Your task to perform on an android device: choose inbox layout in the gmail app Image 0: 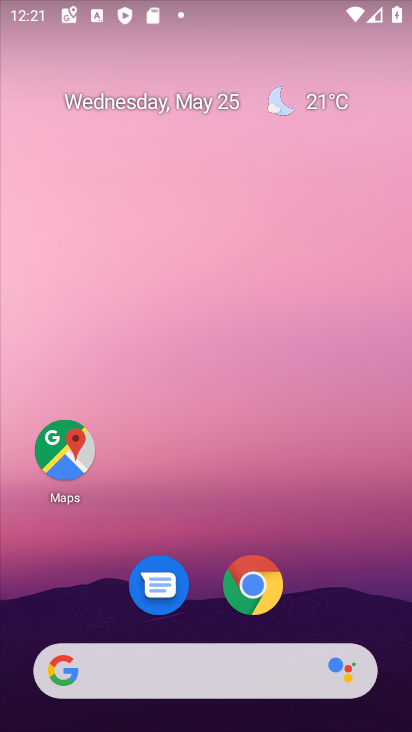
Step 0: drag from (225, 499) to (220, 57)
Your task to perform on an android device: choose inbox layout in the gmail app Image 1: 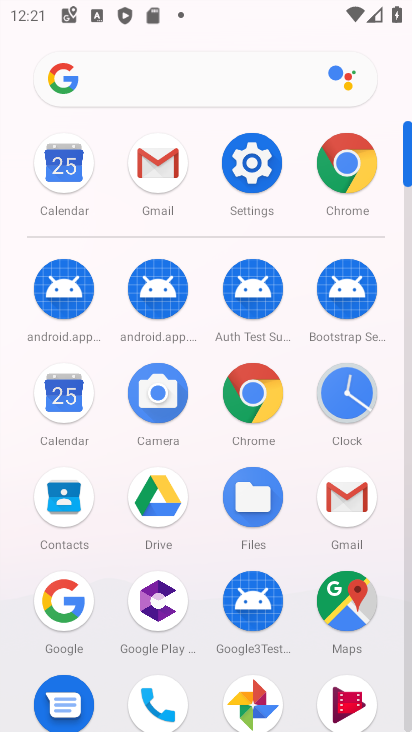
Step 1: click (163, 160)
Your task to perform on an android device: choose inbox layout in the gmail app Image 2: 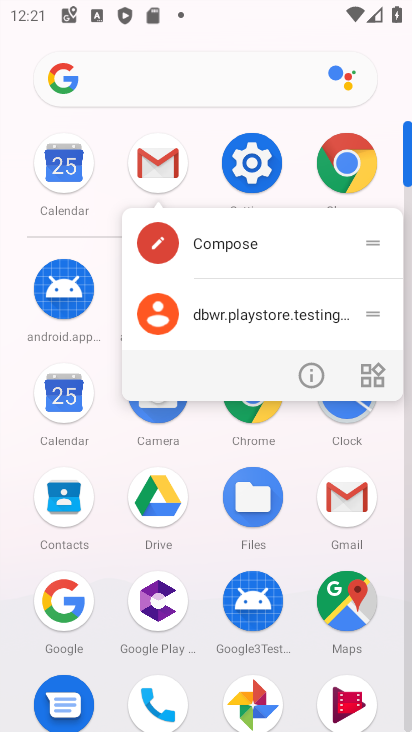
Step 2: click (163, 158)
Your task to perform on an android device: choose inbox layout in the gmail app Image 3: 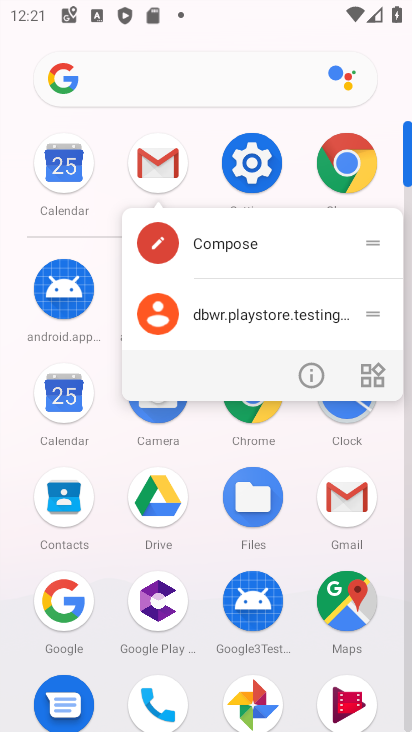
Step 3: click (152, 149)
Your task to perform on an android device: choose inbox layout in the gmail app Image 4: 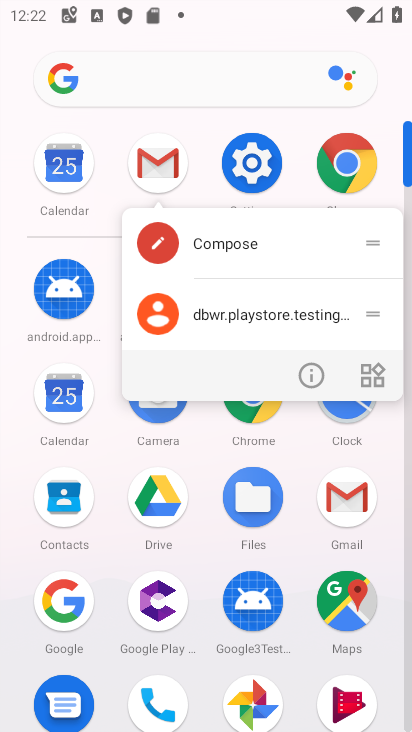
Step 4: click (152, 149)
Your task to perform on an android device: choose inbox layout in the gmail app Image 5: 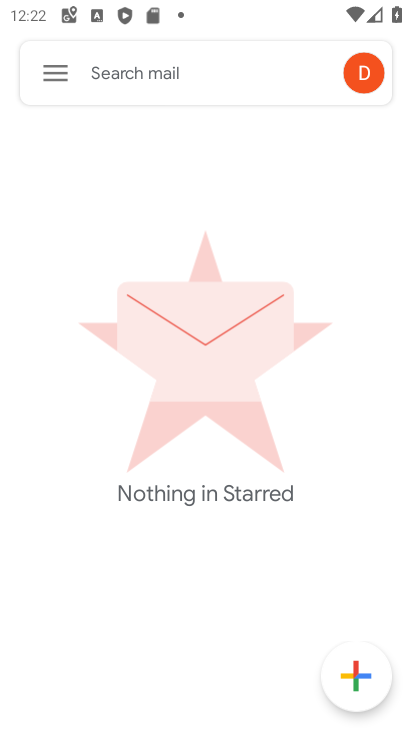
Step 5: click (56, 77)
Your task to perform on an android device: choose inbox layout in the gmail app Image 6: 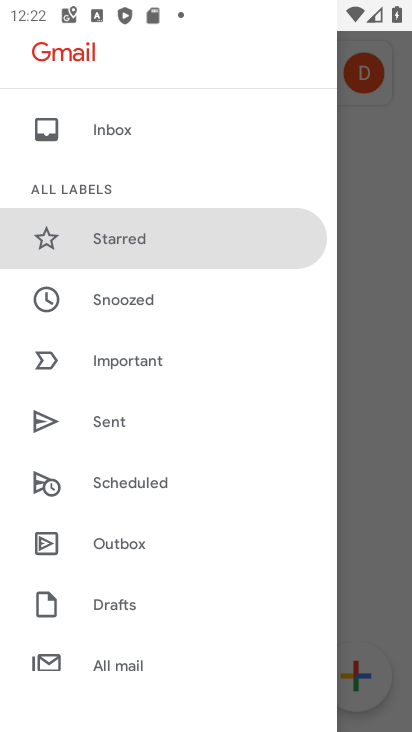
Step 6: drag from (188, 533) to (236, 166)
Your task to perform on an android device: choose inbox layout in the gmail app Image 7: 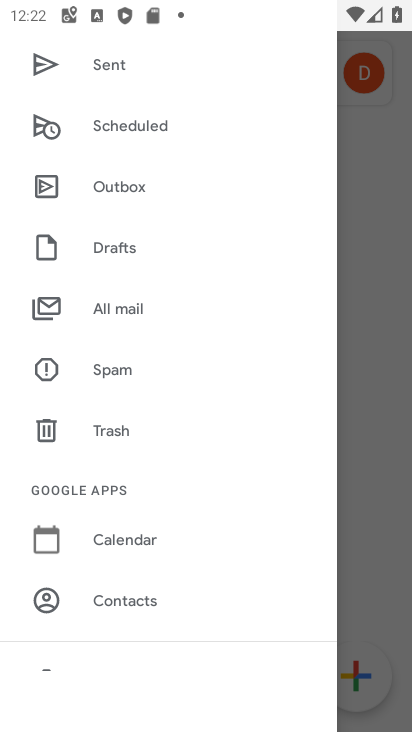
Step 7: drag from (183, 436) to (183, 215)
Your task to perform on an android device: choose inbox layout in the gmail app Image 8: 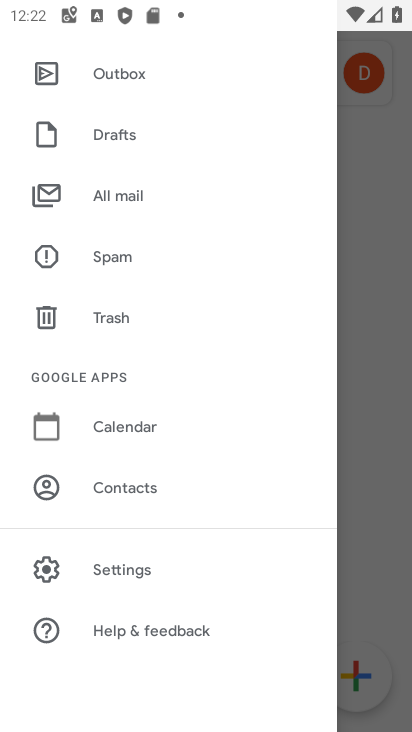
Step 8: click (161, 565)
Your task to perform on an android device: choose inbox layout in the gmail app Image 9: 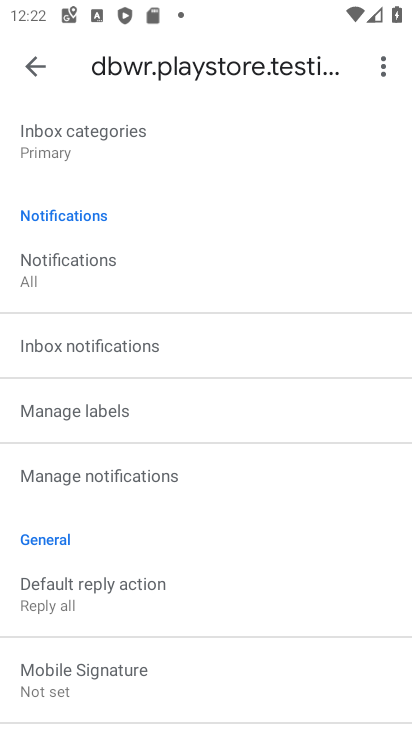
Step 9: drag from (190, 220) to (165, 551)
Your task to perform on an android device: choose inbox layout in the gmail app Image 10: 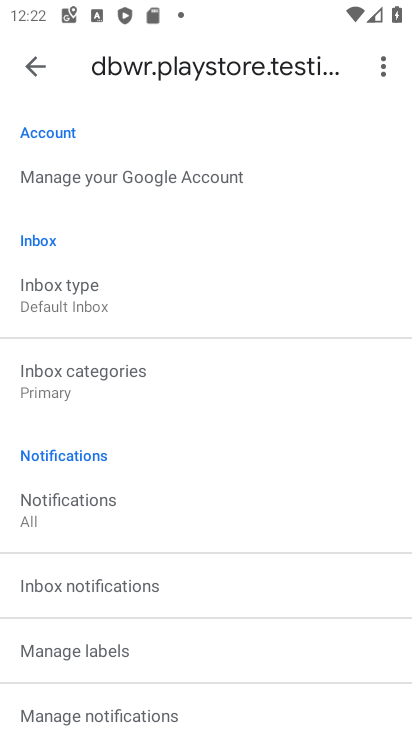
Step 10: click (78, 290)
Your task to perform on an android device: choose inbox layout in the gmail app Image 11: 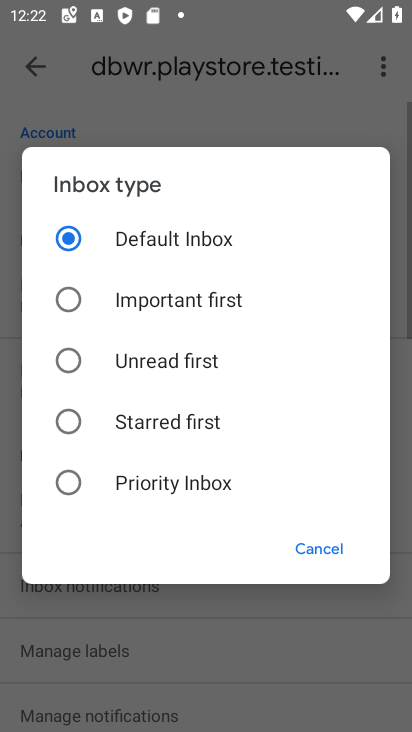
Step 11: click (78, 291)
Your task to perform on an android device: choose inbox layout in the gmail app Image 12: 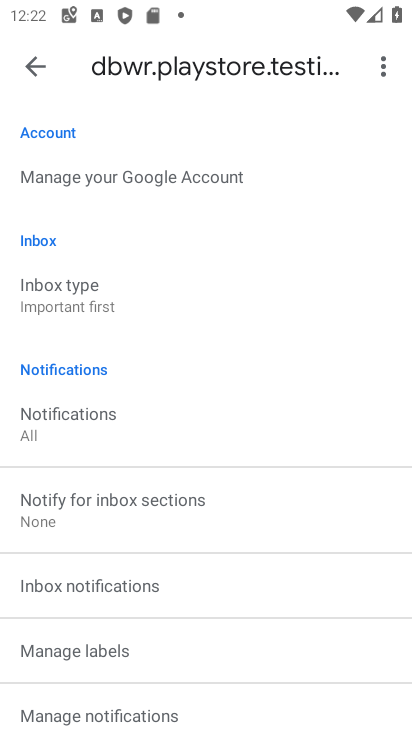
Step 12: task complete